Your task to perform on an android device: allow cookies in the chrome app Image 0: 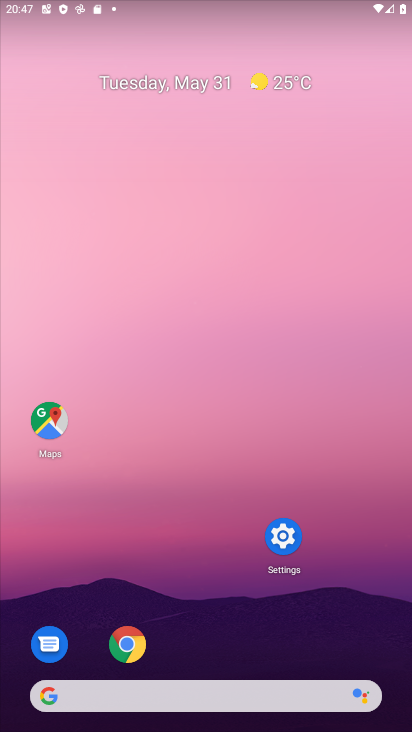
Step 0: click (140, 642)
Your task to perform on an android device: allow cookies in the chrome app Image 1: 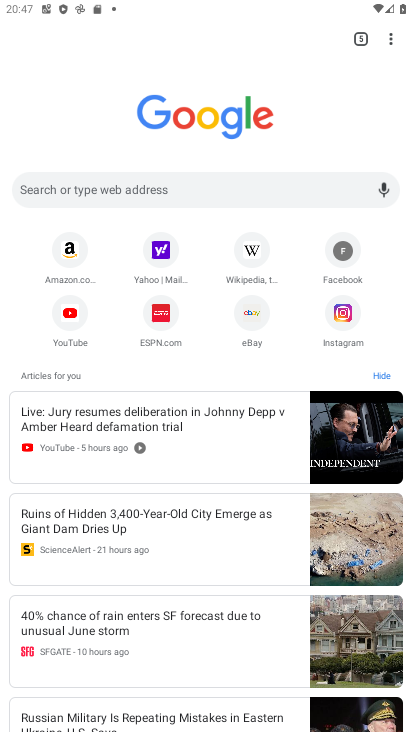
Step 1: click (395, 42)
Your task to perform on an android device: allow cookies in the chrome app Image 2: 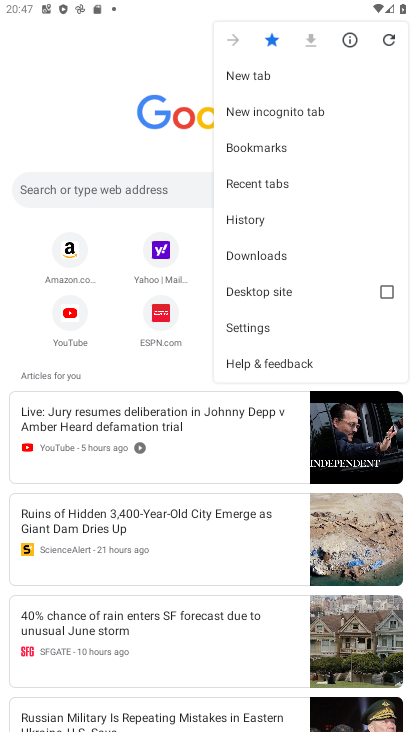
Step 2: click (264, 327)
Your task to perform on an android device: allow cookies in the chrome app Image 3: 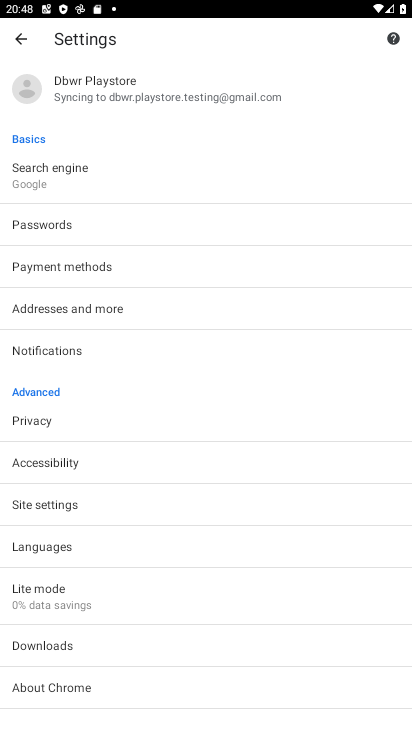
Step 3: click (51, 504)
Your task to perform on an android device: allow cookies in the chrome app Image 4: 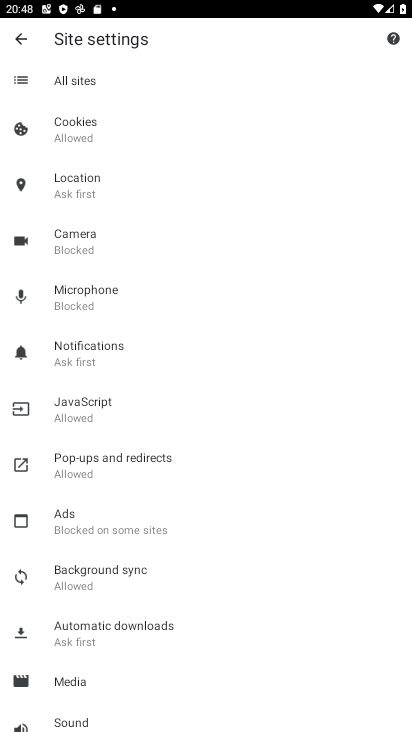
Step 4: click (88, 132)
Your task to perform on an android device: allow cookies in the chrome app Image 5: 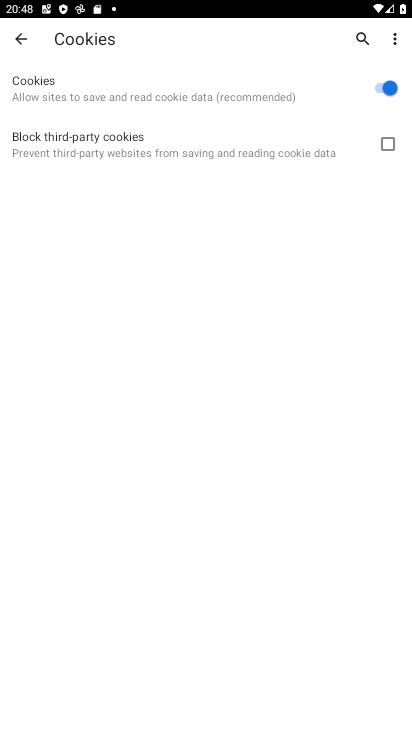
Step 5: click (390, 87)
Your task to perform on an android device: allow cookies in the chrome app Image 6: 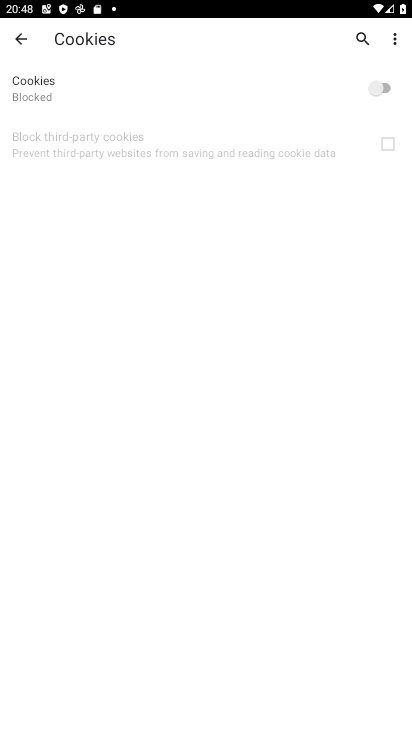
Step 6: click (390, 87)
Your task to perform on an android device: allow cookies in the chrome app Image 7: 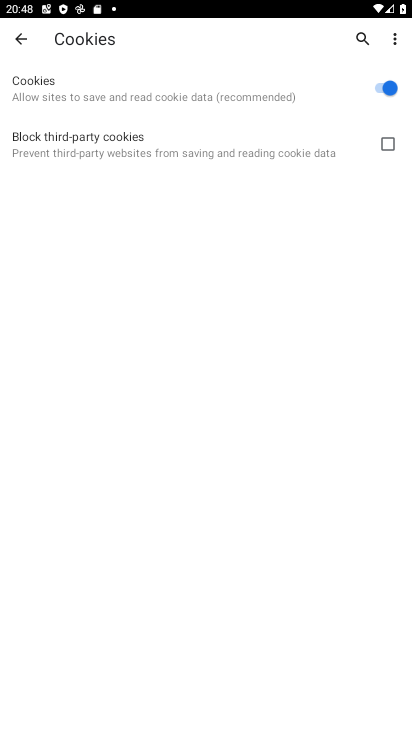
Step 7: task complete